Your task to perform on an android device: toggle priority inbox in the gmail app Image 0: 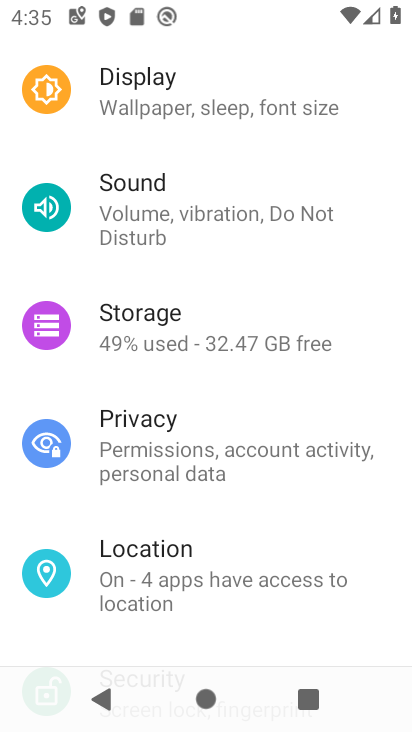
Step 0: press home button
Your task to perform on an android device: toggle priority inbox in the gmail app Image 1: 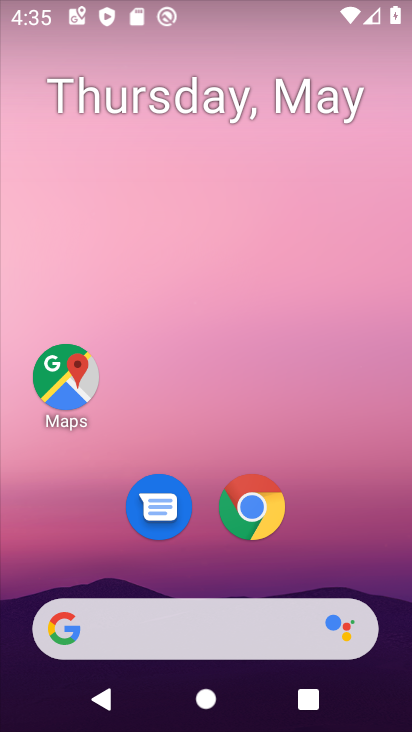
Step 1: drag from (210, 561) to (242, 88)
Your task to perform on an android device: toggle priority inbox in the gmail app Image 2: 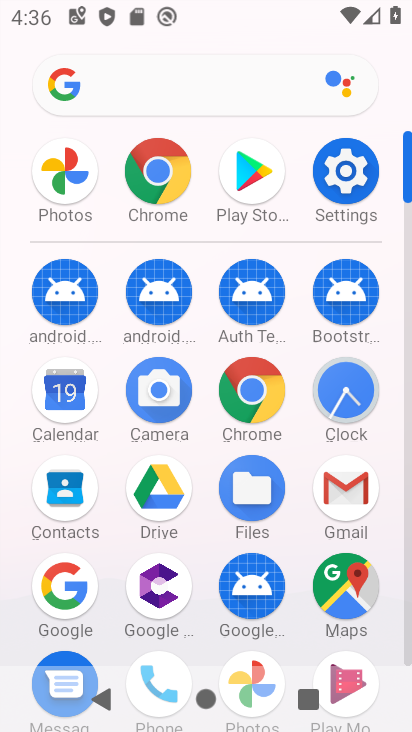
Step 2: click (357, 488)
Your task to perform on an android device: toggle priority inbox in the gmail app Image 3: 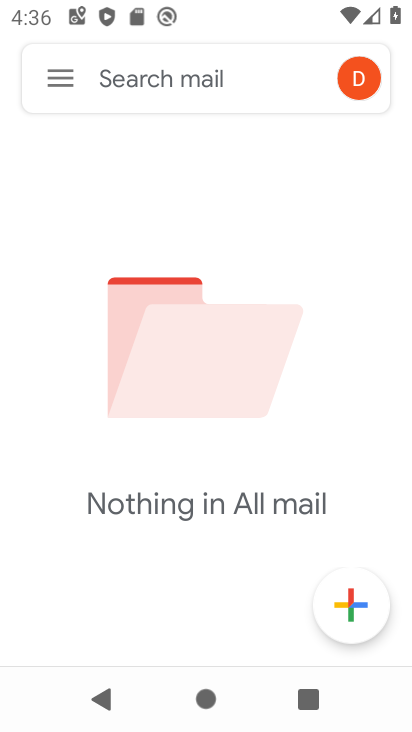
Step 3: click (53, 87)
Your task to perform on an android device: toggle priority inbox in the gmail app Image 4: 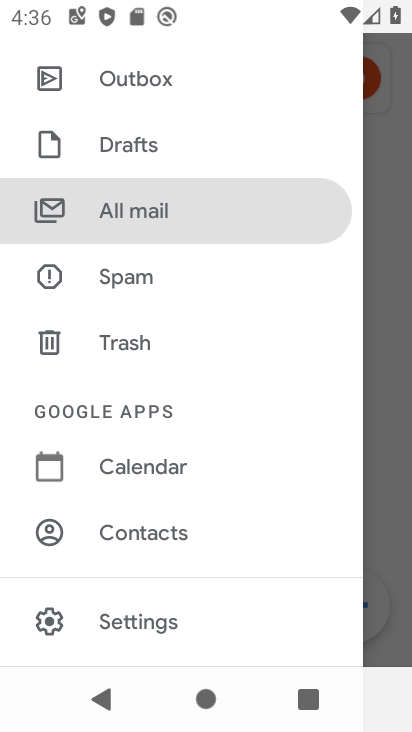
Step 4: click (136, 625)
Your task to perform on an android device: toggle priority inbox in the gmail app Image 5: 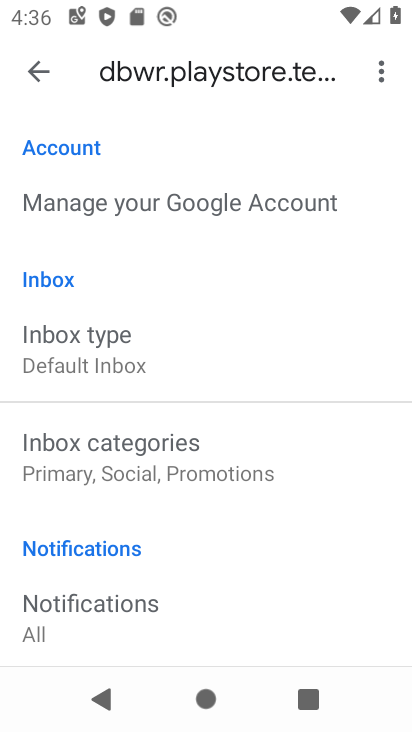
Step 5: click (123, 370)
Your task to perform on an android device: toggle priority inbox in the gmail app Image 6: 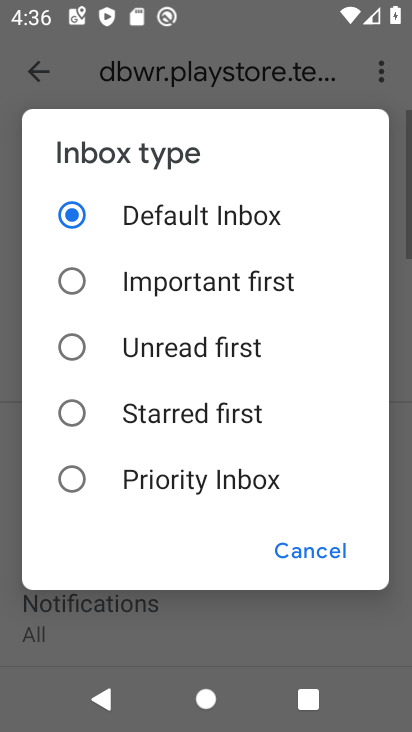
Step 6: click (163, 475)
Your task to perform on an android device: toggle priority inbox in the gmail app Image 7: 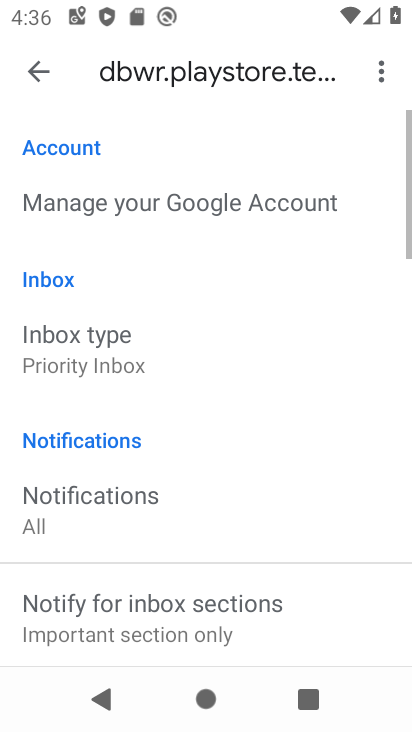
Step 7: task complete